Your task to perform on an android device: open app "Spotify" Image 0: 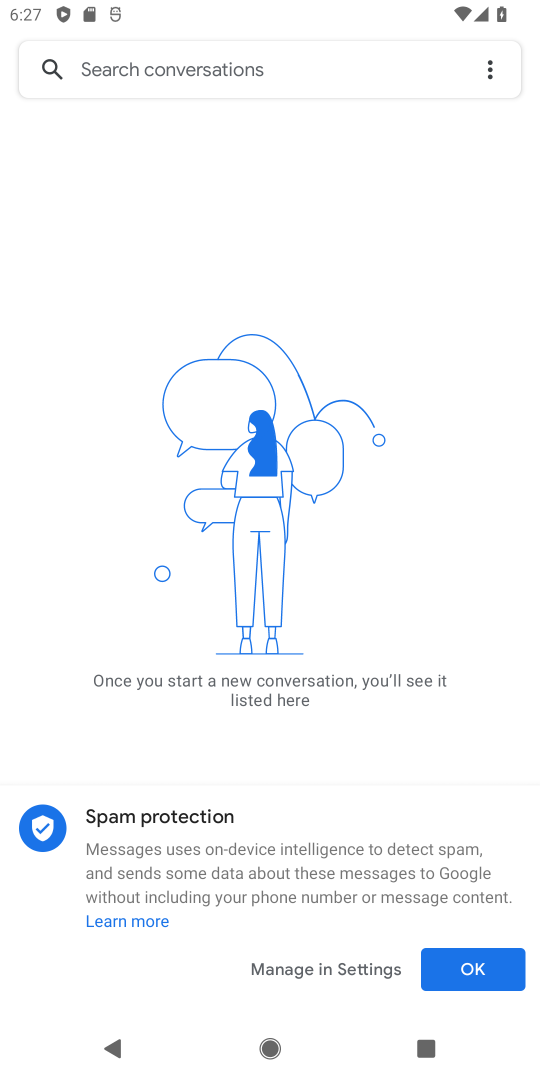
Step 0: press home button
Your task to perform on an android device: open app "Spotify" Image 1: 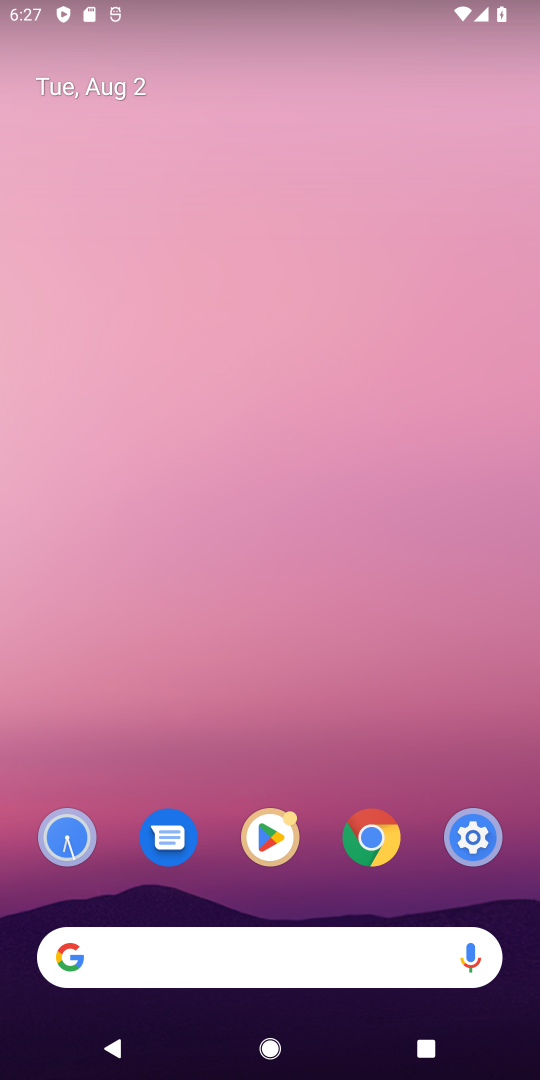
Step 1: click (284, 832)
Your task to perform on an android device: open app "Spotify" Image 2: 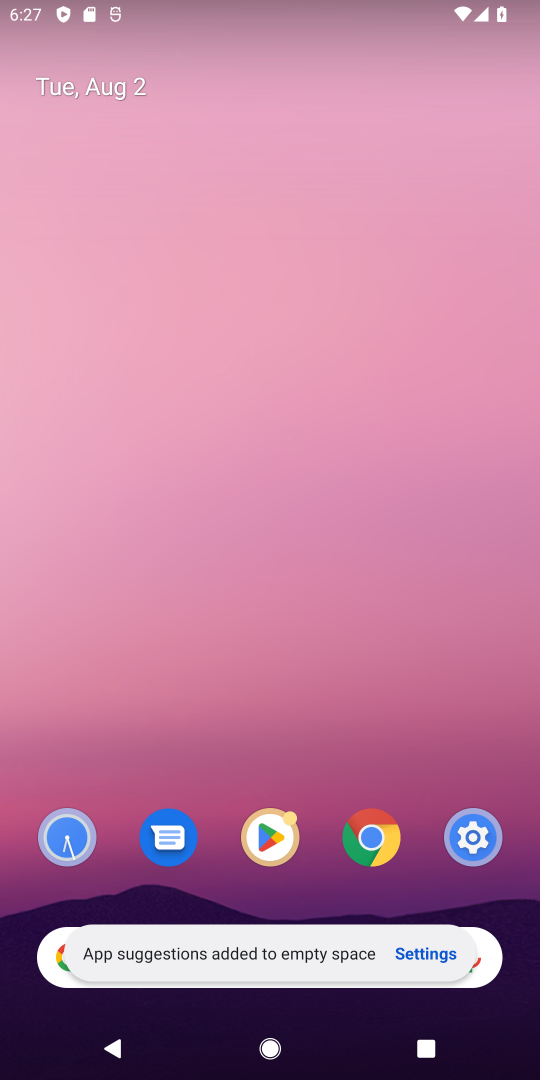
Step 2: click (270, 832)
Your task to perform on an android device: open app "Spotify" Image 3: 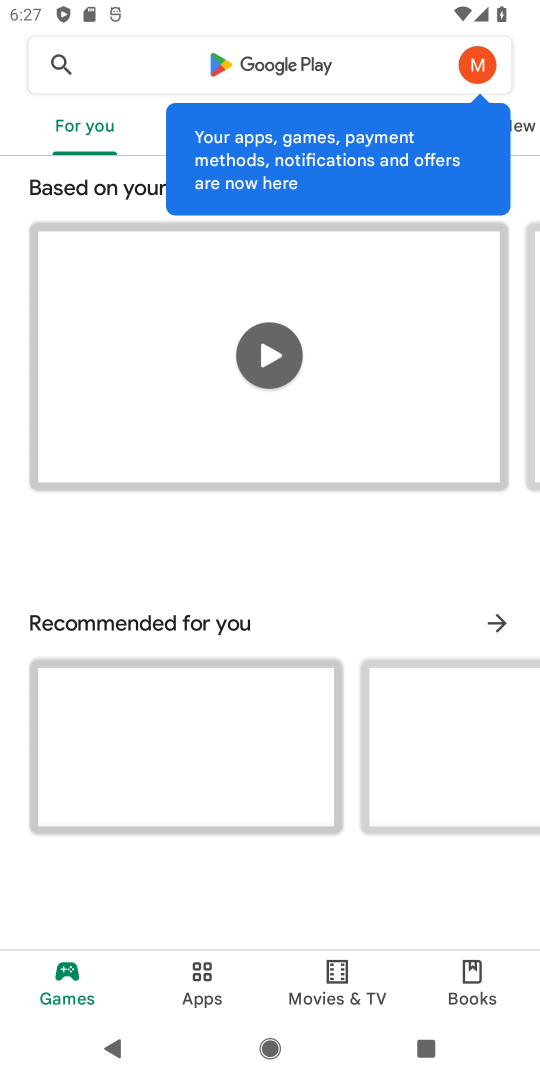
Step 3: click (173, 70)
Your task to perform on an android device: open app "Spotify" Image 4: 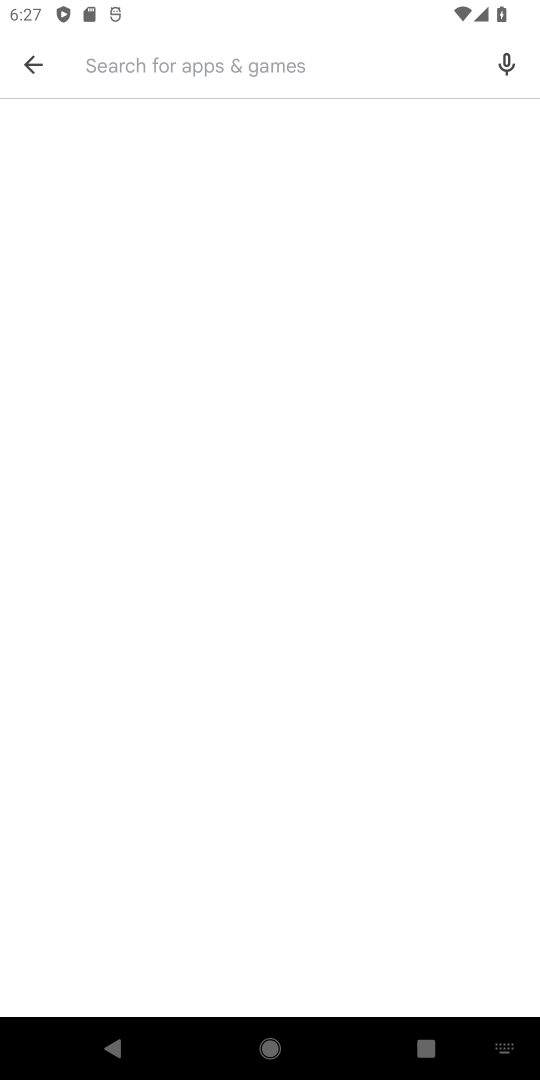
Step 4: type "Spotify"
Your task to perform on an android device: open app "Spotify" Image 5: 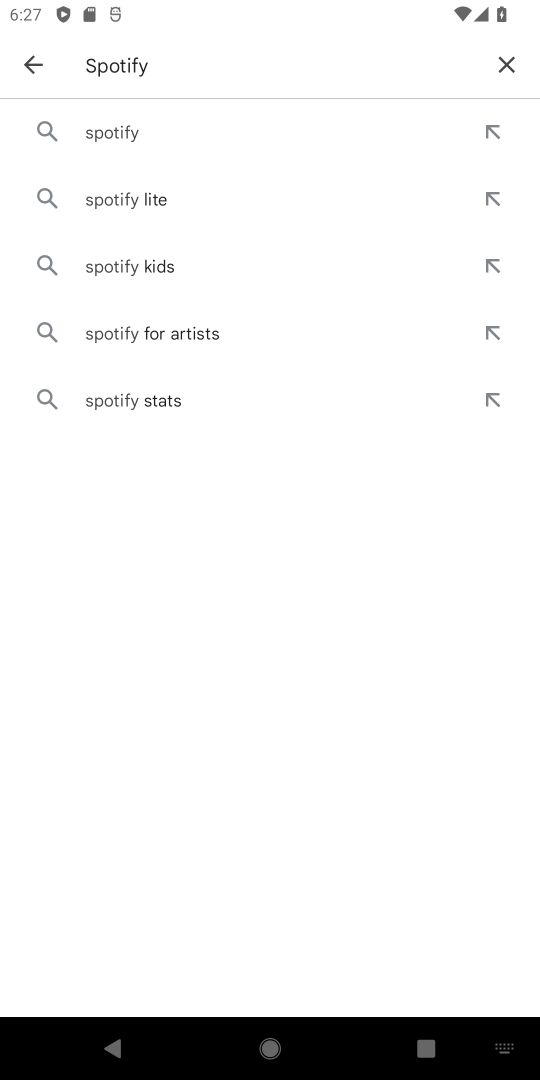
Step 5: click (109, 141)
Your task to perform on an android device: open app "Spotify" Image 6: 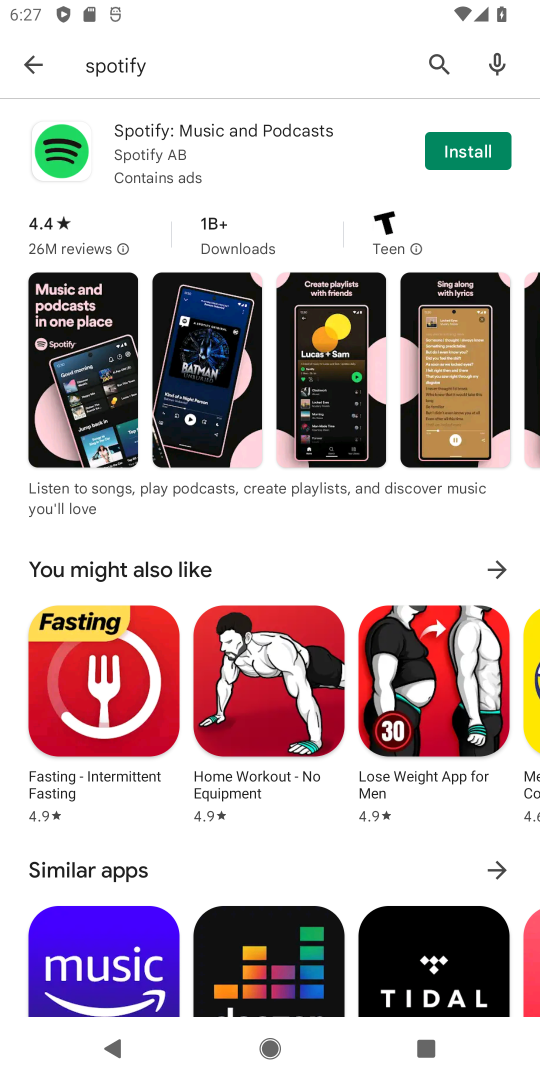
Step 6: task complete